Your task to perform on an android device: Turn on the flashlight Image 0: 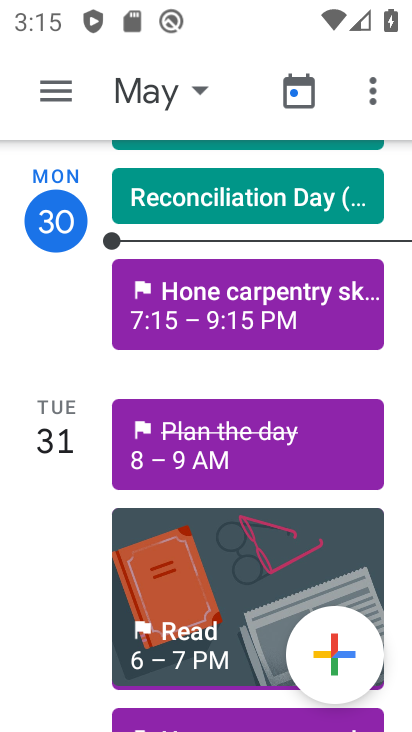
Step 0: press home button
Your task to perform on an android device: Turn on the flashlight Image 1: 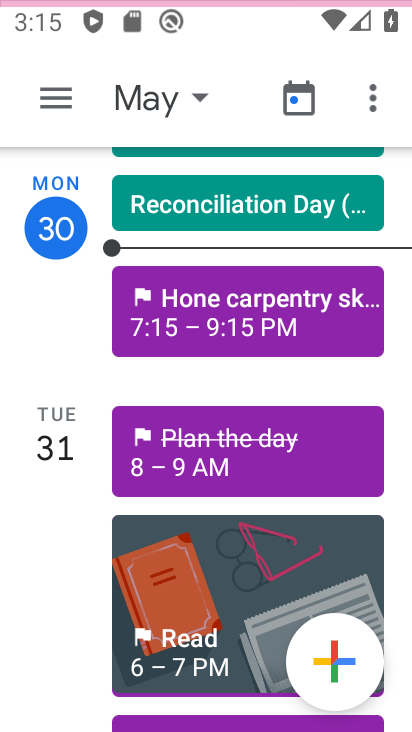
Step 1: press home button
Your task to perform on an android device: Turn on the flashlight Image 2: 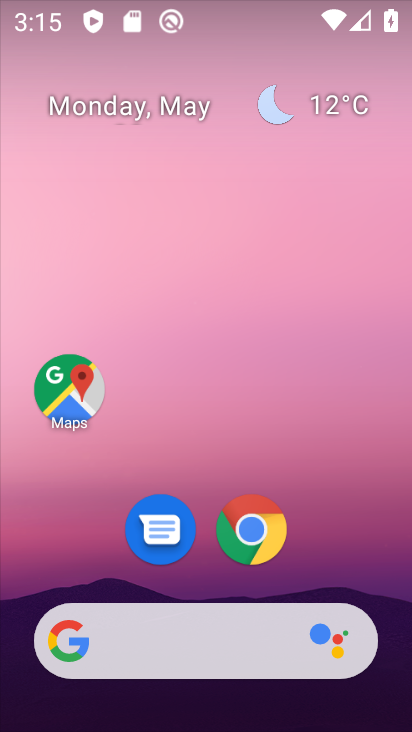
Step 2: drag from (344, 456) to (271, 38)
Your task to perform on an android device: Turn on the flashlight Image 3: 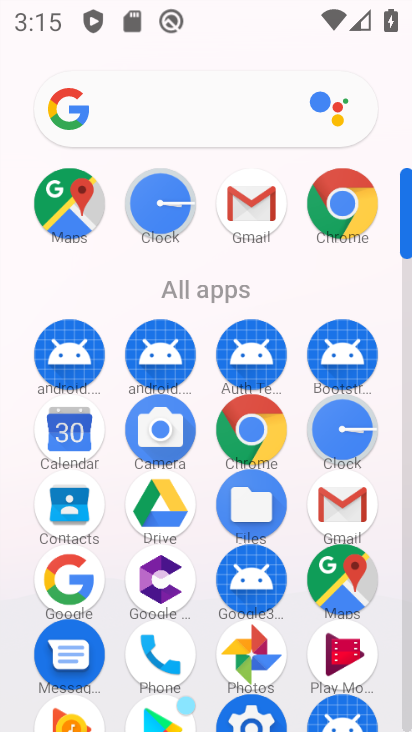
Step 3: drag from (296, 684) to (305, 161)
Your task to perform on an android device: Turn on the flashlight Image 4: 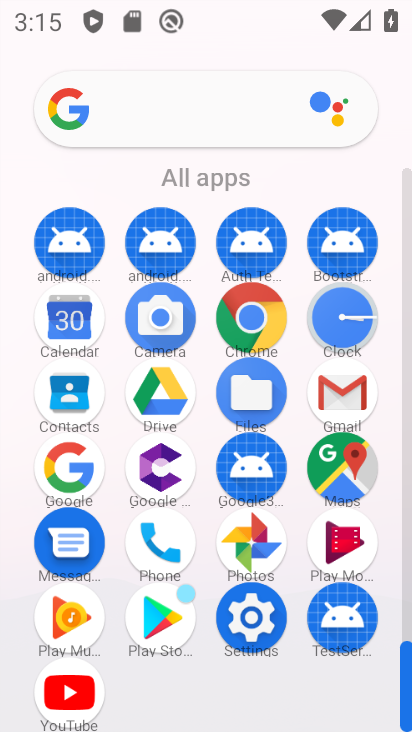
Step 4: click (261, 610)
Your task to perform on an android device: Turn on the flashlight Image 5: 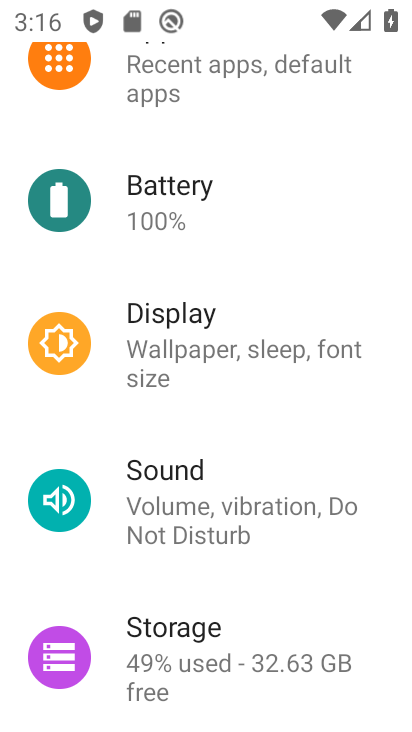
Step 5: drag from (225, 180) to (243, 618)
Your task to perform on an android device: Turn on the flashlight Image 6: 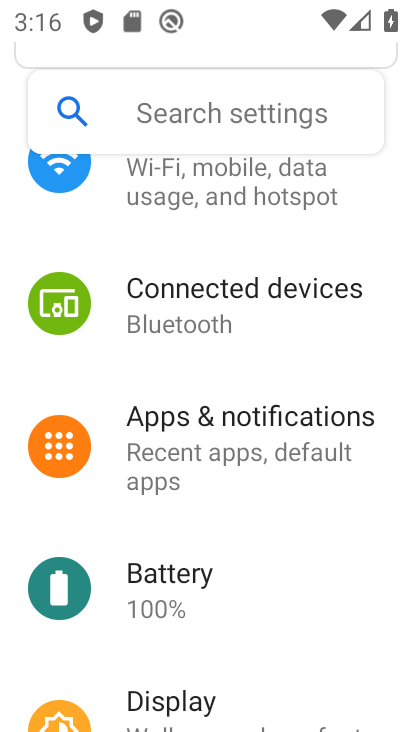
Step 6: drag from (171, 205) to (276, 548)
Your task to perform on an android device: Turn on the flashlight Image 7: 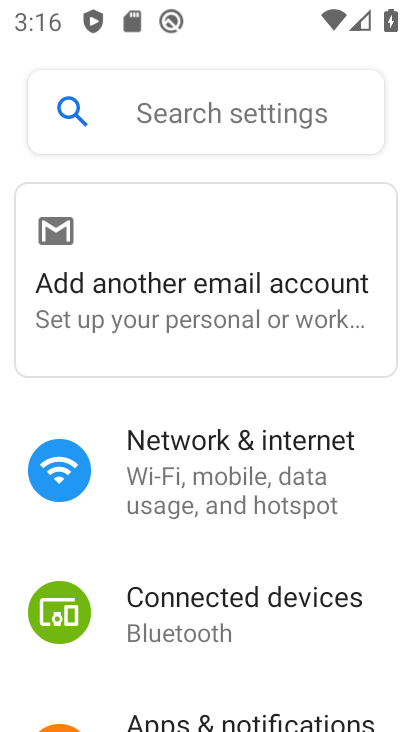
Step 7: drag from (269, 605) to (264, 292)
Your task to perform on an android device: Turn on the flashlight Image 8: 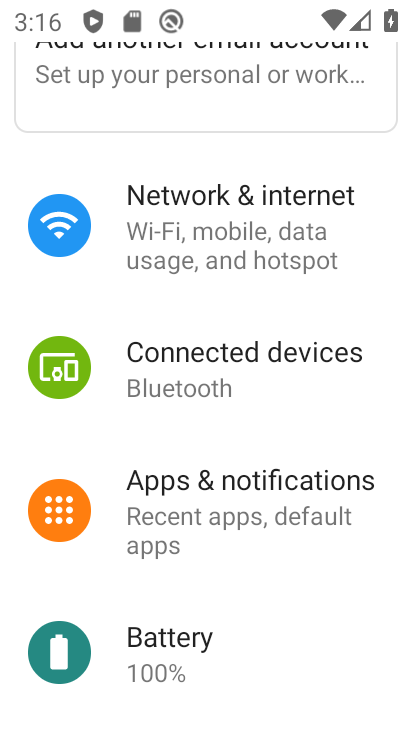
Step 8: drag from (265, 595) to (292, 299)
Your task to perform on an android device: Turn on the flashlight Image 9: 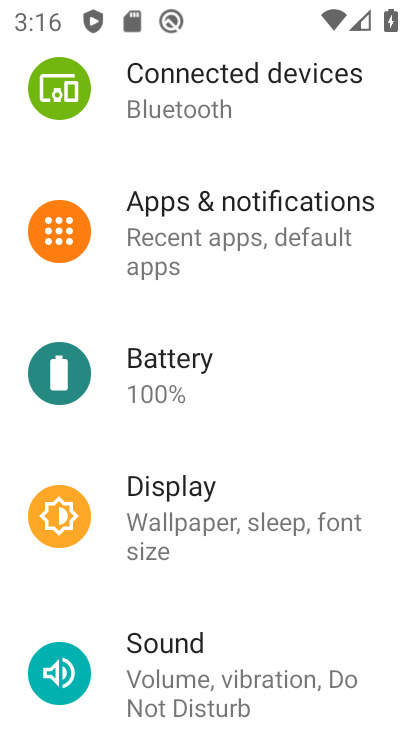
Step 9: click (182, 488)
Your task to perform on an android device: Turn on the flashlight Image 10: 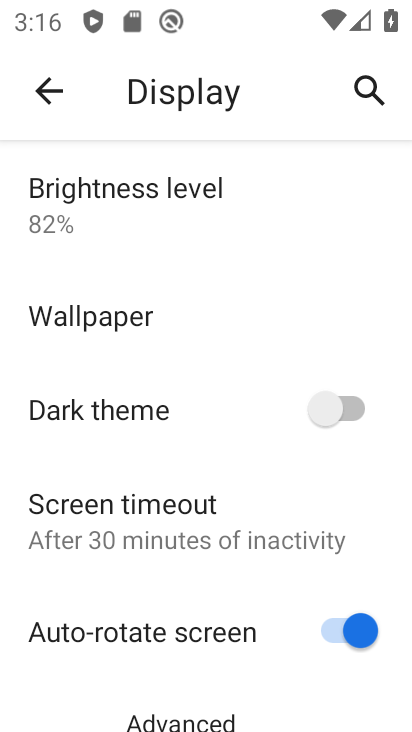
Step 10: task complete